Your task to perform on an android device: show emergency info Image 0: 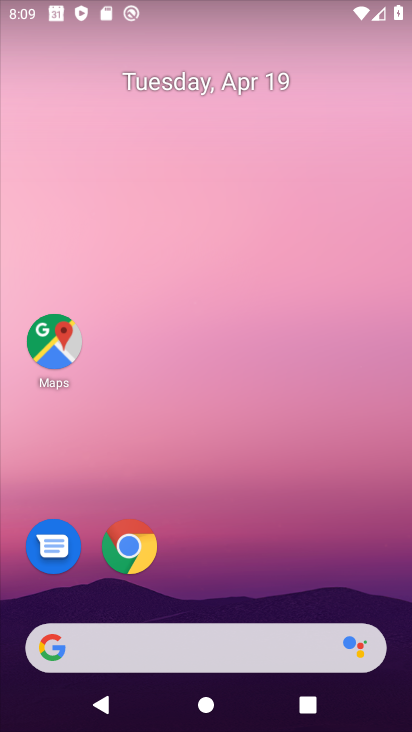
Step 0: drag from (38, 580) to (197, 176)
Your task to perform on an android device: show emergency info Image 1: 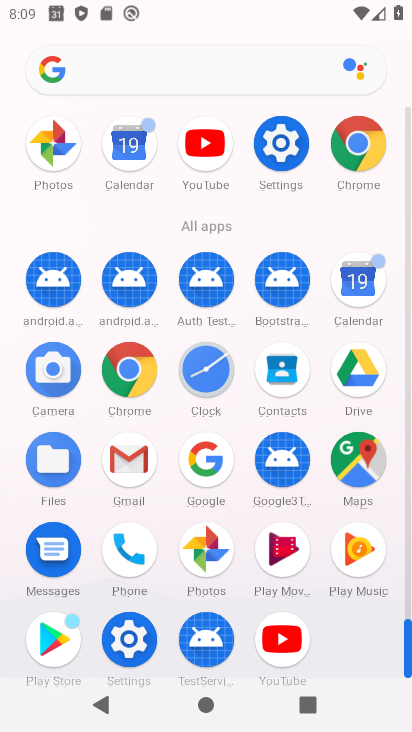
Step 1: click (275, 155)
Your task to perform on an android device: show emergency info Image 2: 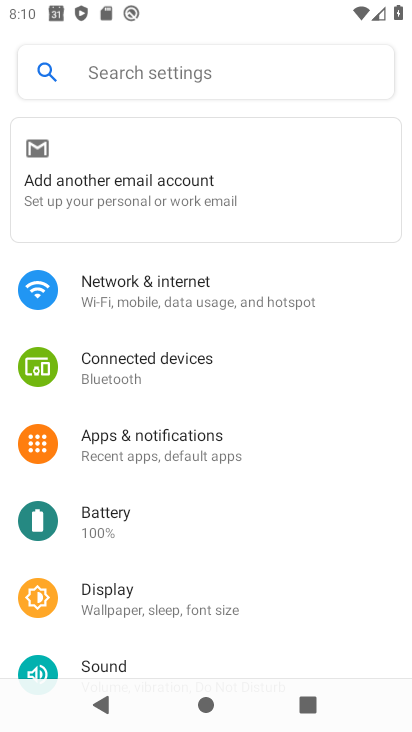
Step 2: drag from (11, 660) to (192, 248)
Your task to perform on an android device: show emergency info Image 3: 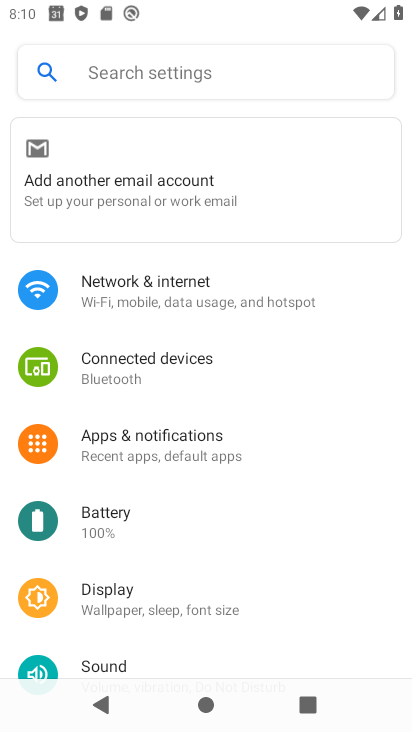
Step 3: drag from (44, 533) to (228, 217)
Your task to perform on an android device: show emergency info Image 4: 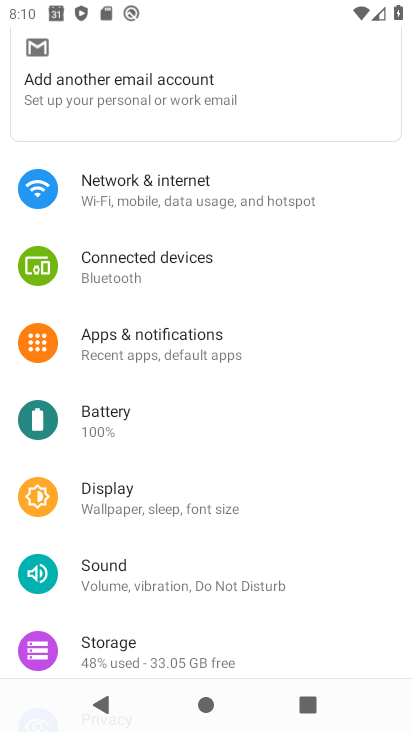
Step 4: drag from (69, 575) to (242, 193)
Your task to perform on an android device: show emergency info Image 5: 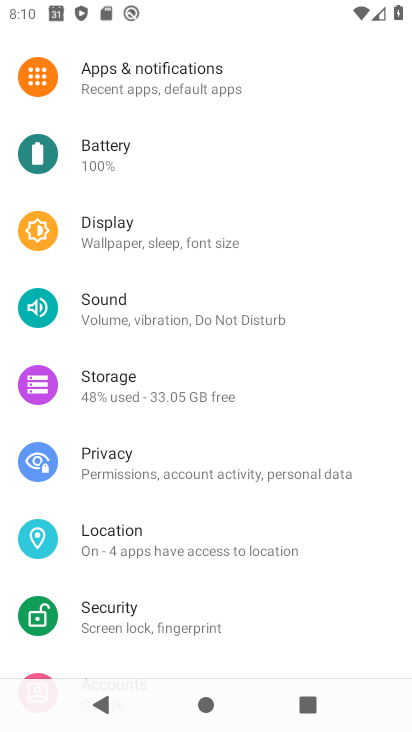
Step 5: drag from (86, 295) to (168, 171)
Your task to perform on an android device: show emergency info Image 6: 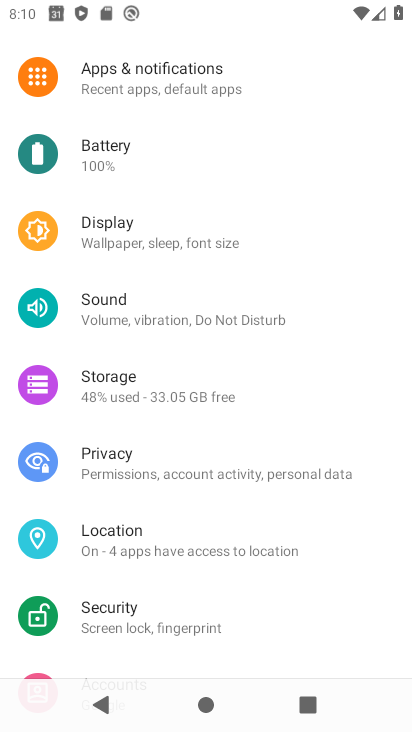
Step 6: drag from (84, 616) to (173, 295)
Your task to perform on an android device: show emergency info Image 7: 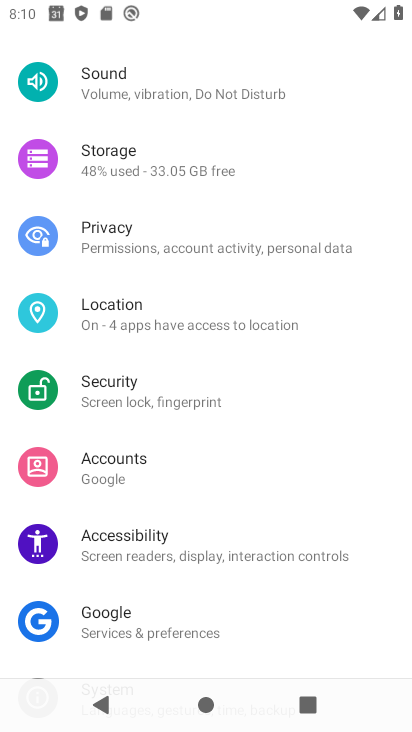
Step 7: drag from (78, 663) to (302, 157)
Your task to perform on an android device: show emergency info Image 8: 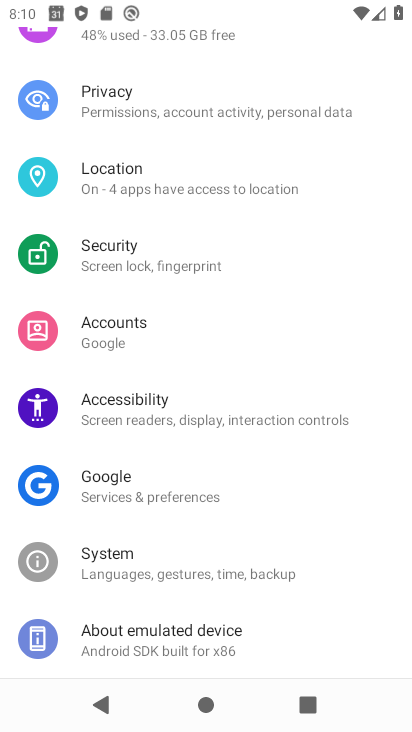
Step 8: drag from (60, 612) to (250, 164)
Your task to perform on an android device: show emergency info Image 9: 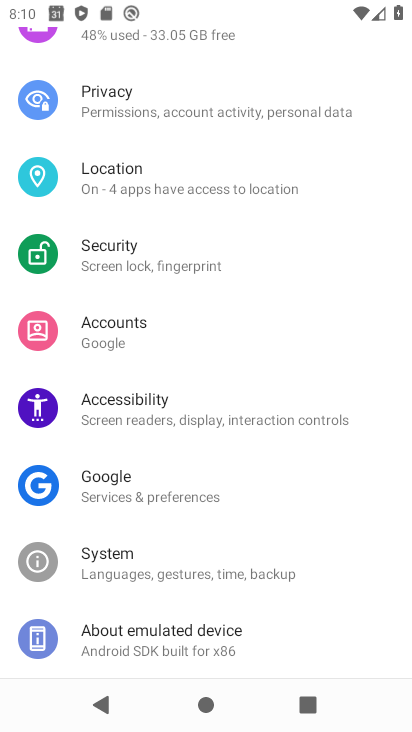
Step 9: click (135, 643)
Your task to perform on an android device: show emergency info Image 10: 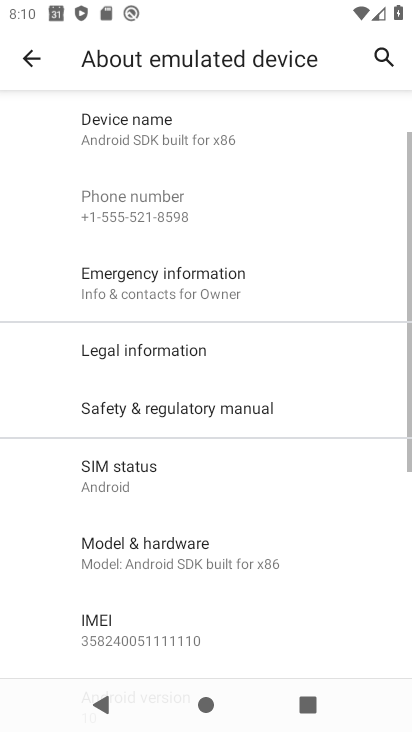
Step 10: click (165, 293)
Your task to perform on an android device: show emergency info Image 11: 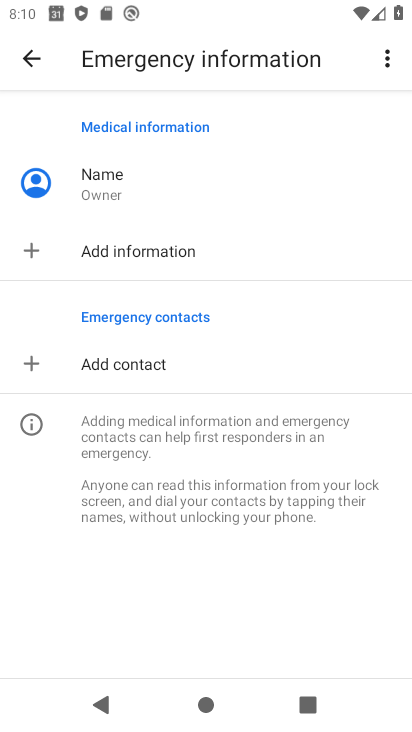
Step 11: task complete